Your task to perform on an android device: open the mobile data screen to see how much data has been used Image 0: 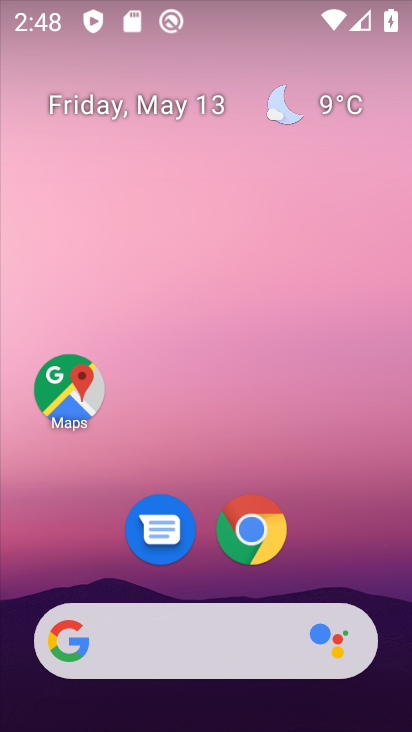
Step 0: drag from (135, 603) to (312, 28)
Your task to perform on an android device: open the mobile data screen to see how much data has been used Image 1: 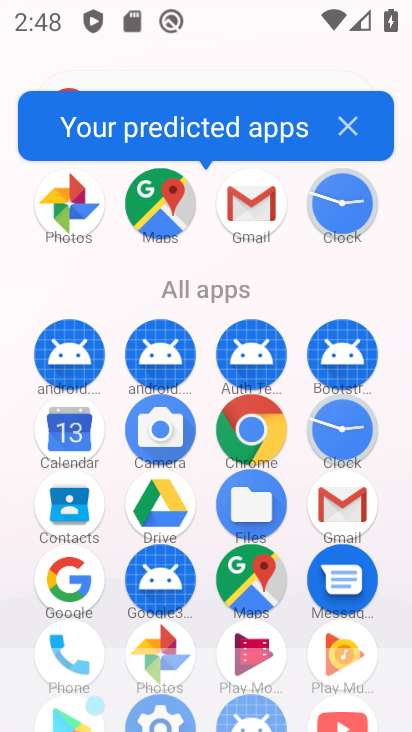
Step 1: drag from (221, 591) to (294, 418)
Your task to perform on an android device: open the mobile data screen to see how much data has been used Image 2: 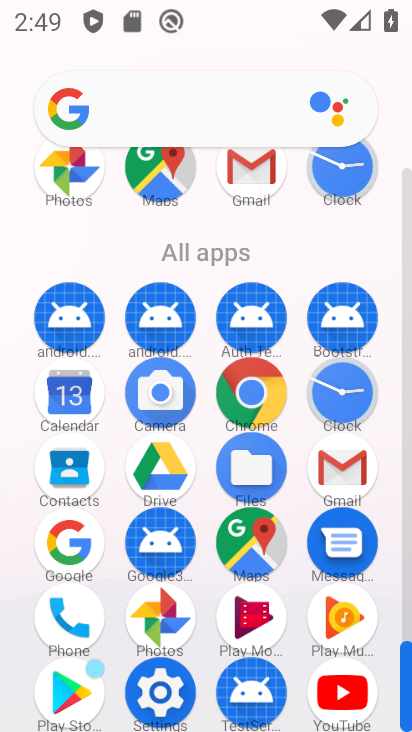
Step 2: click (163, 702)
Your task to perform on an android device: open the mobile data screen to see how much data has been used Image 3: 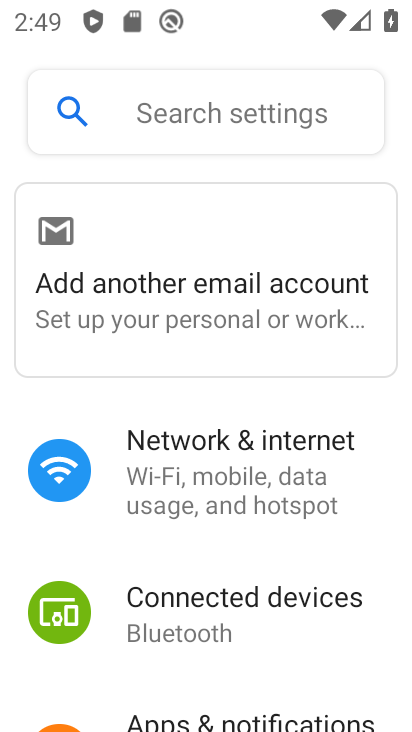
Step 3: click (226, 498)
Your task to perform on an android device: open the mobile data screen to see how much data has been used Image 4: 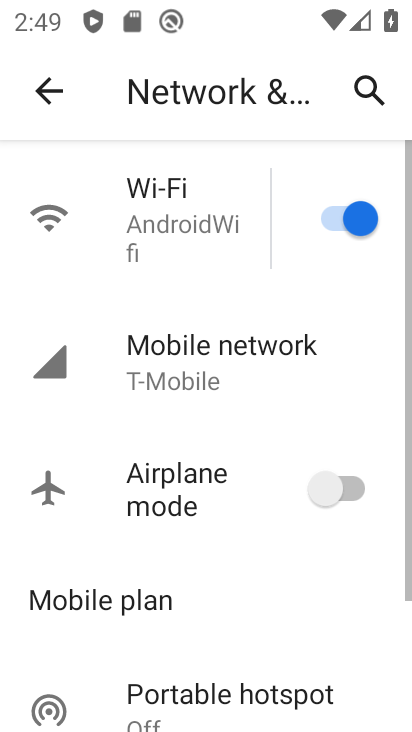
Step 4: click (242, 384)
Your task to perform on an android device: open the mobile data screen to see how much data has been used Image 5: 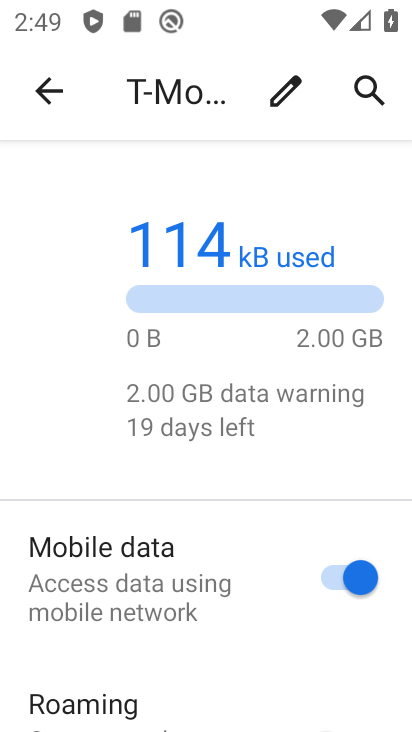
Step 5: task complete